Your task to perform on an android device: Open Amazon Image 0: 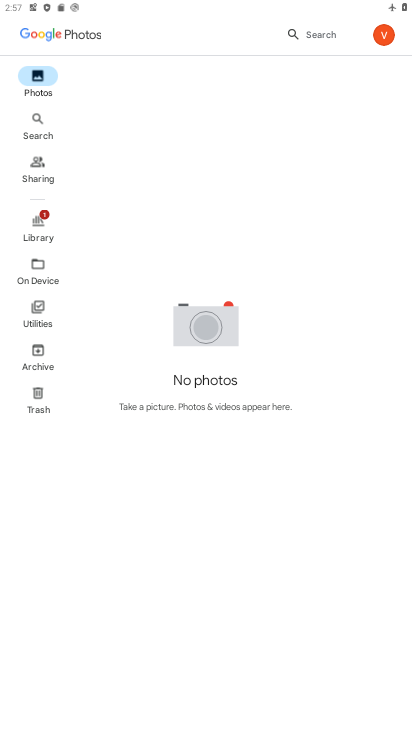
Step 0: press home button
Your task to perform on an android device: Open Amazon Image 1: 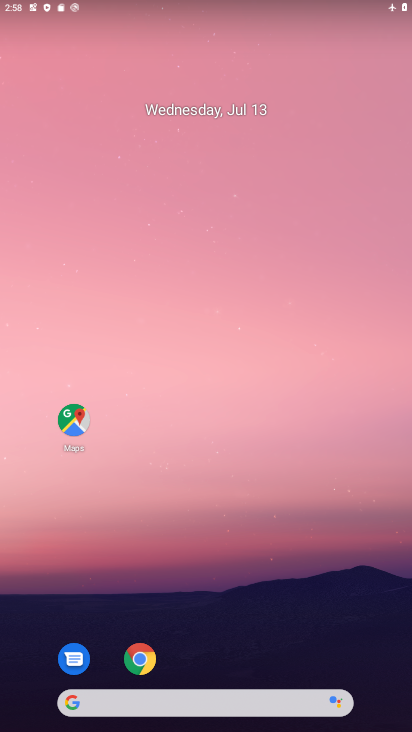
Step 1: click (136, 657)
Your task to perform on an android device: Open Amazon Image 2: 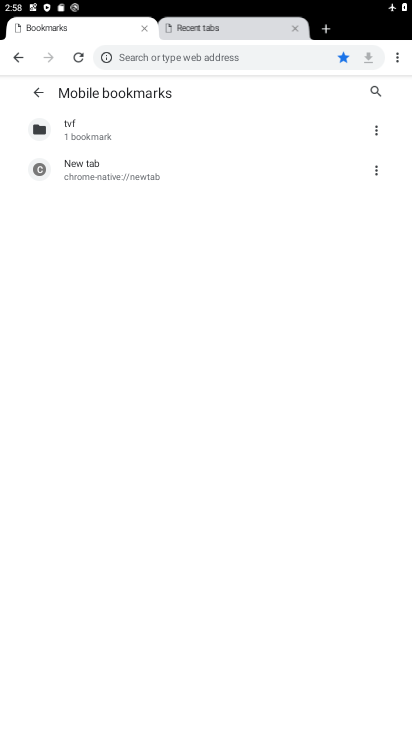
Step 2: click (249, 59)
Your task to perform on an android device: Open Amazon Image 3: 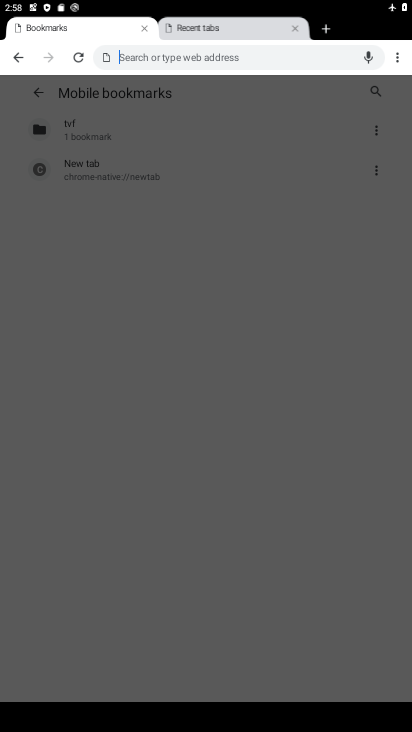
Step 3: type "Amazon"
Your task to perform on an android device: Open Amazon Image 4: 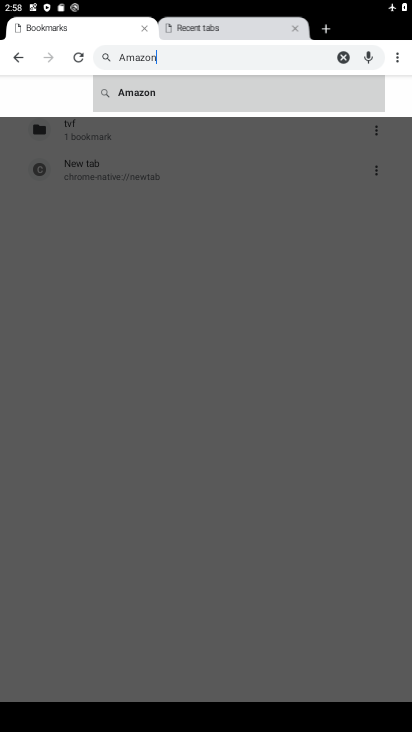
Step 4: click (152, 88)
Your task to perform on an android device: Open Amazon Image 5: 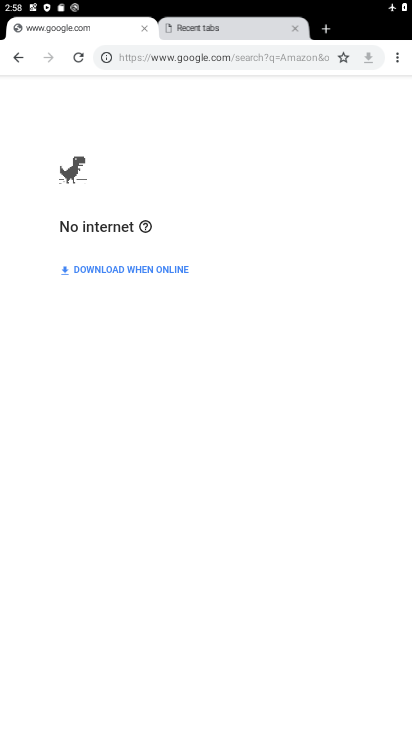
Step 5: task complete